Your task to perform on an android device: See recent photos Image 0: 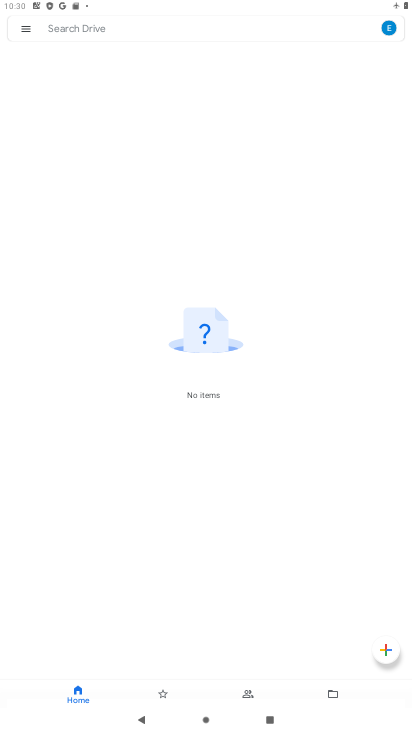
Step 0: press home button
Your task to perform on an android device: See recent photos Image 1: 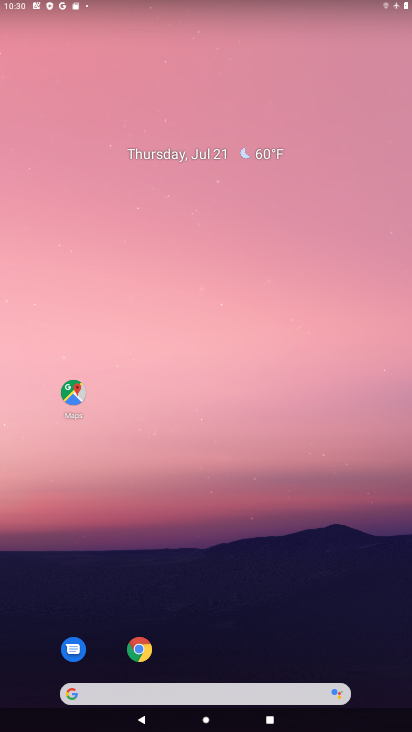
Step 1: drag from (194, 692) to (237, 228)
Your task to perform on an android device: See recent photos Image 2: 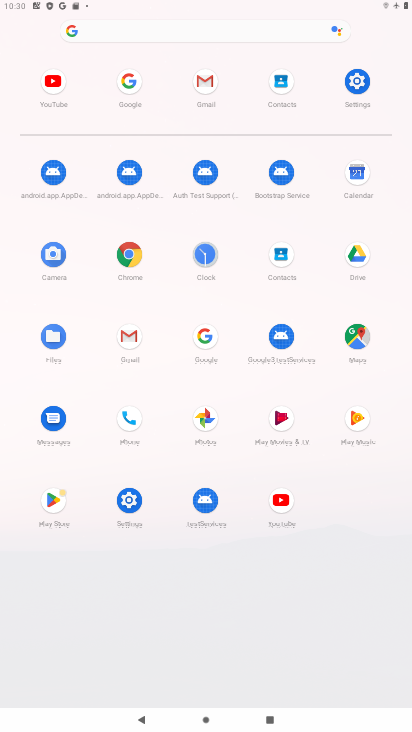
Step 2: click (206, 419)
Your task to perform on an android device: See recent photos Image 3: 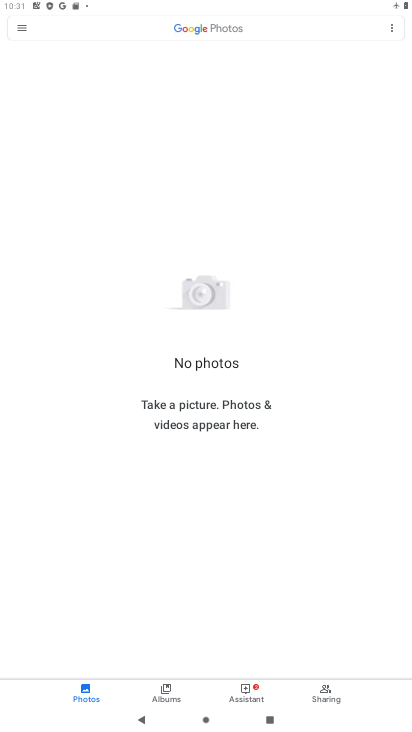
Step 3: click (166, 691)
Your task to perform on an android device: See recent photos Image 4: 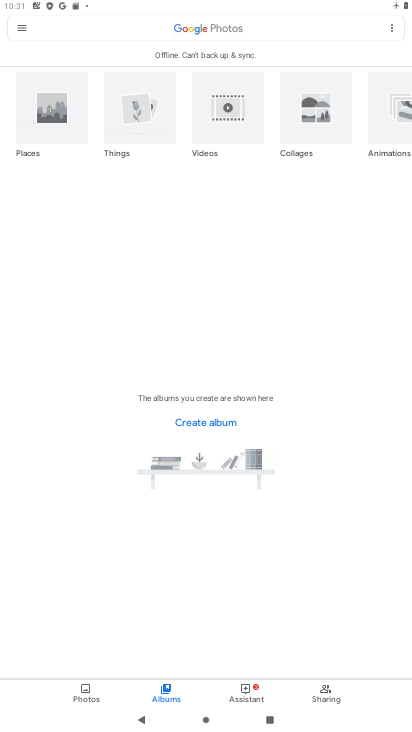
Step 4: click (334, 699)
Your task to perform on an android device: See recent photos Image 5: 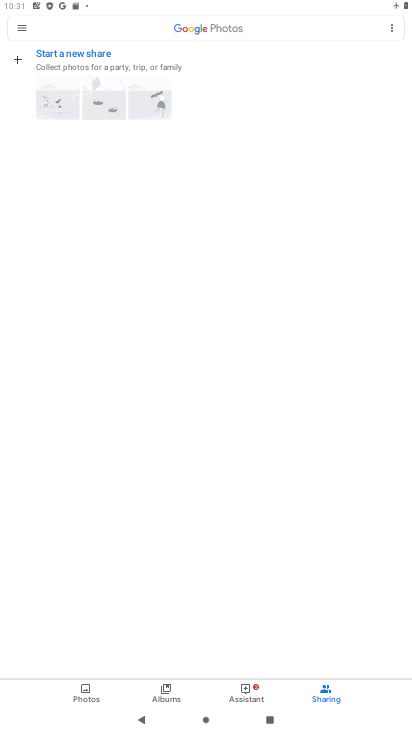
Step 5: press back button
Your task to perform on an android device: See recent photos Image 6: 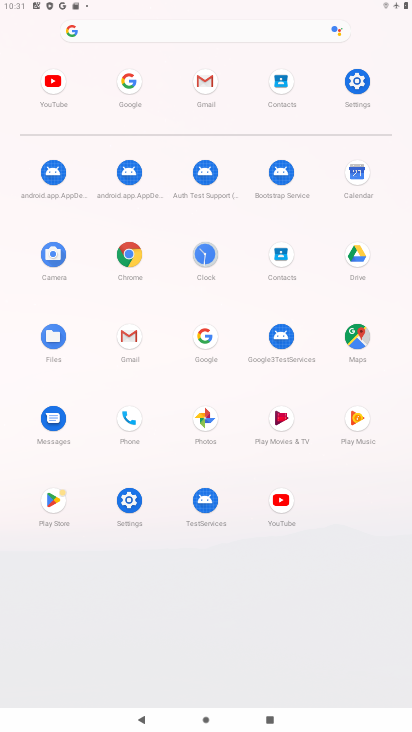
Step 6: click (205, 419)
Your task to perform on an android device: See recent photos Image 7: 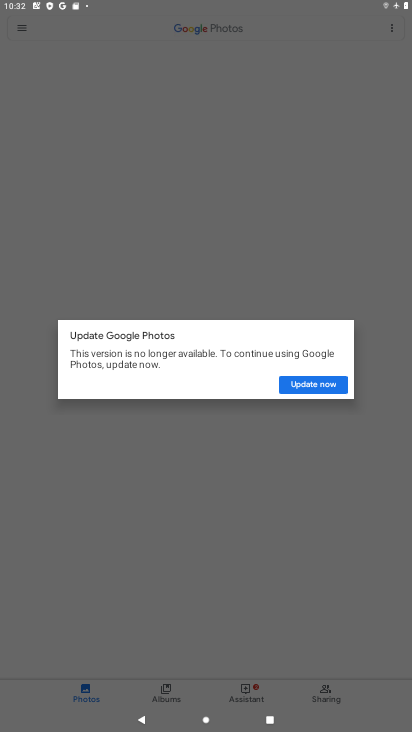
Step 7: click (294, 393)
Your task to perform on an android device: See recent photos Image 8: 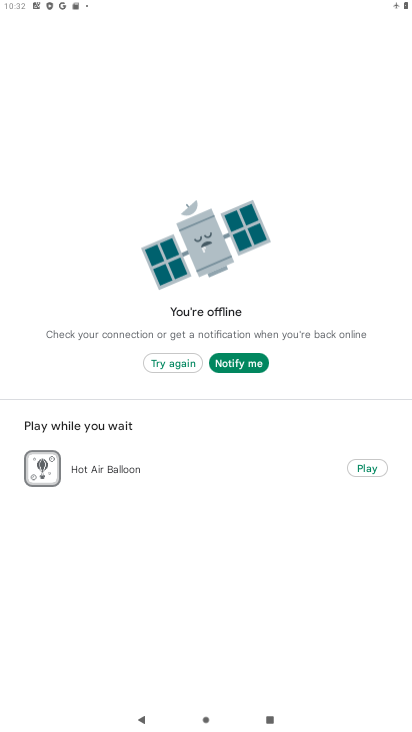
Step 8: click (181, 364)
Your task to perform on an android device: See recent photos Image 9: 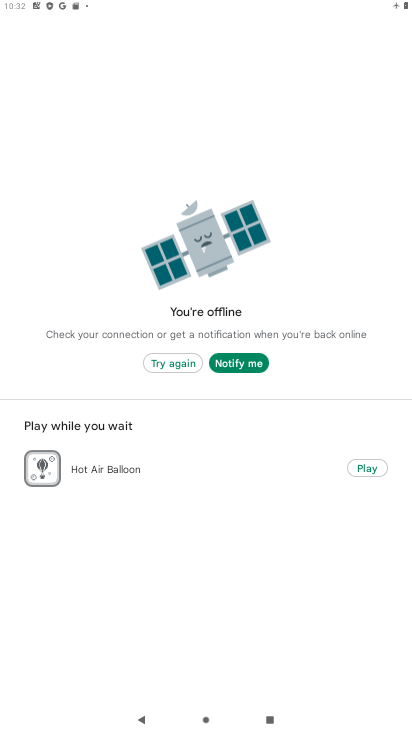
Step 9: task complete